Your task to perform on an android device: Open Chrome and go to the settings page Image 0: 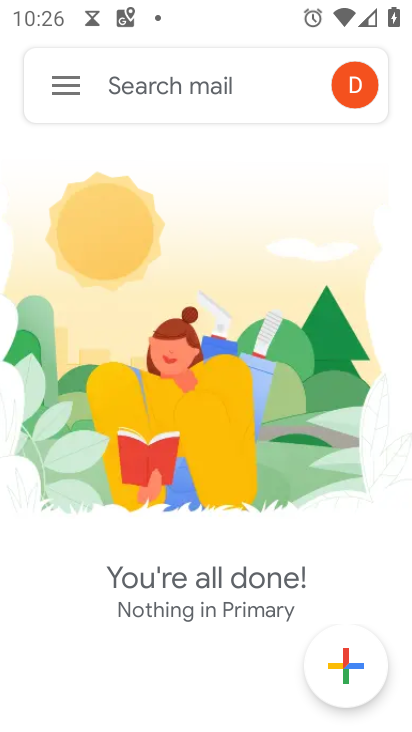
Step 0: press back button
Your task to perform on an android device: Open Chrome and go to the settings page Image 1: 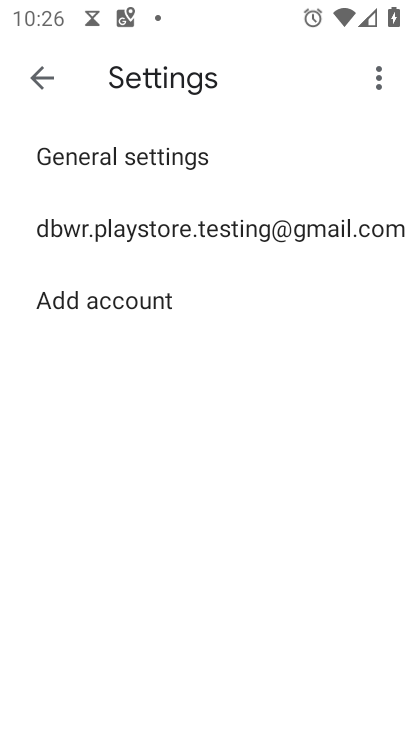
Step 1: click (37, 62)
Your task to perform on an android device: Open Chrome and go to the settings page Image 2: 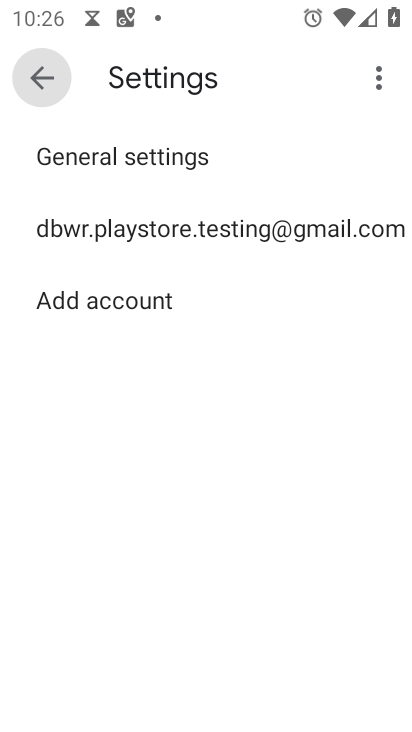
Step 2: click (37, 71)
Your task to perform on an android device: Open Chrome and go to the settings page Image 3: 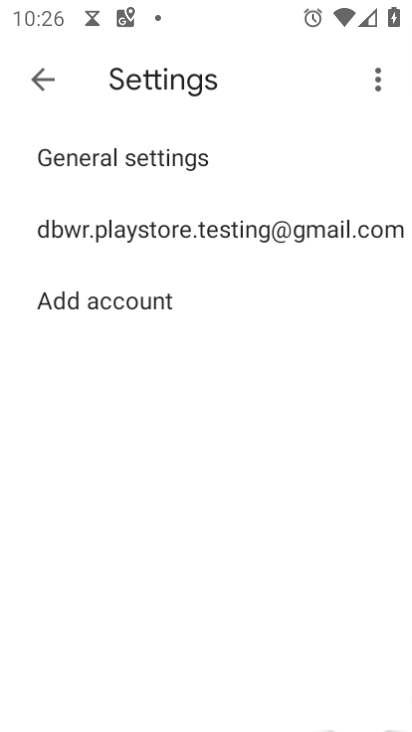
Step 3: click (38, 73)
Your task to perform on an android device: Open Chrome and go to the settings page Image 4: 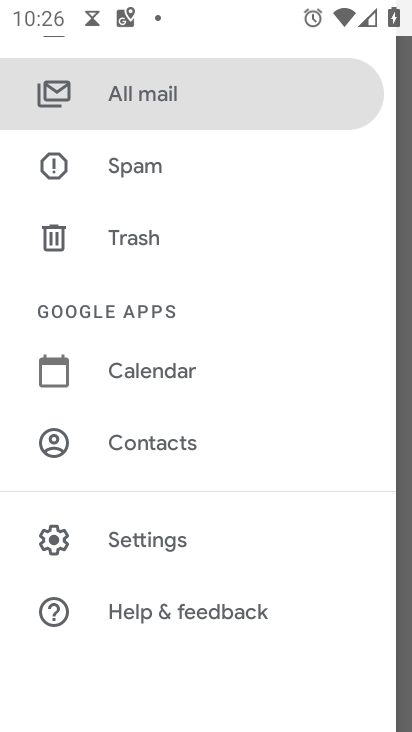
Step 4: press home button
Your task to perform on an android device: Open Chrome and go to the settings page Image 5: 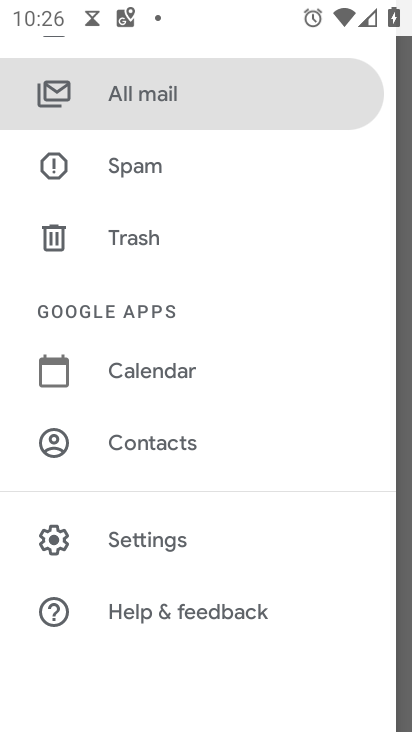
Step 5: press home button
Your task to perform on an android device: Open Chrome and go to the settings page Image 6: 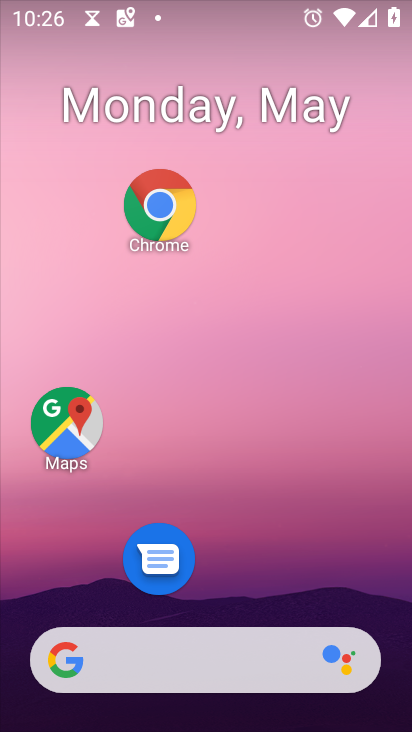
Step 6: drag from (265, 713) to (129, 243)
Your task to perform on an android device: Open Chrome and go to the settings page Image 7: 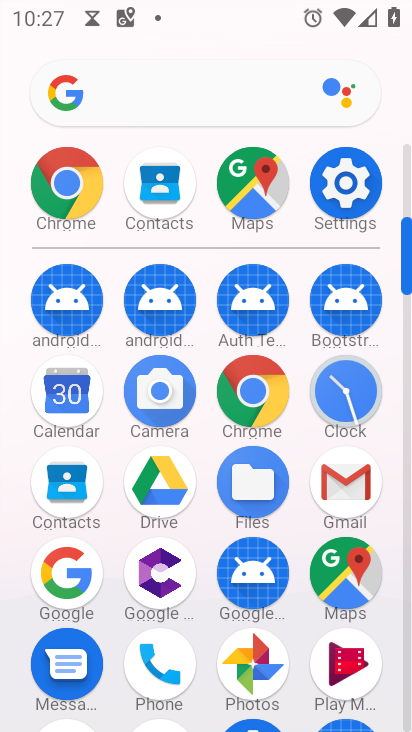
Step 7: click (59, 193)
Your task to perform on an android device: Open Chrome and go to the settings page Image 8: 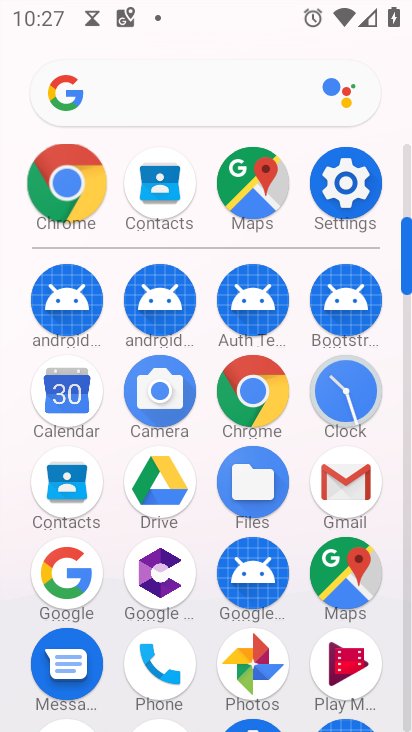
Step 8: click (60, 194)
Your task to perform on an android device: Open Chrome and go to the settings page Image 9: 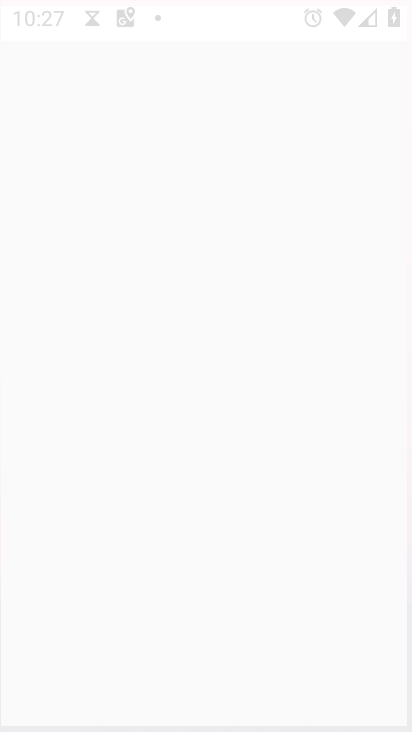
Step 9: click (62, 194)
Your task to perform on an android device: Open Chrome and go to the settings page Image 10: 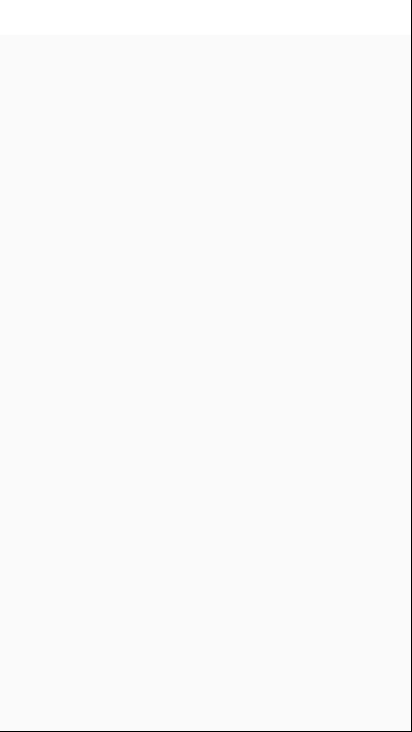
Step 10: click (63, 194)
Your task to perform on an android device: Open Chrome and go to the settings page Image 11: 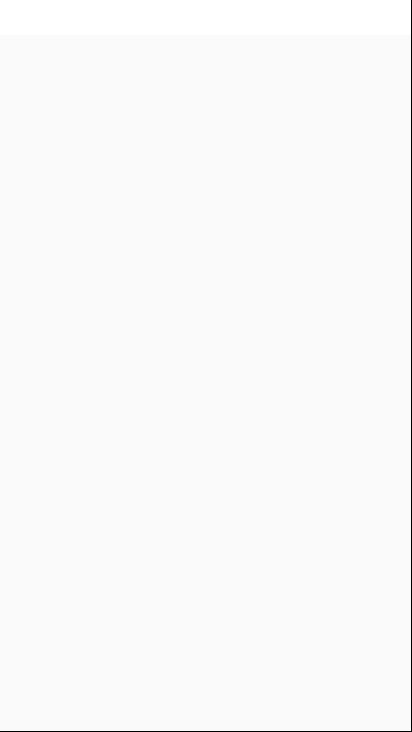
Step 11: click (63, 194)
Your task to perform on an android device: Open Chrome and go to the settings page Image 12: 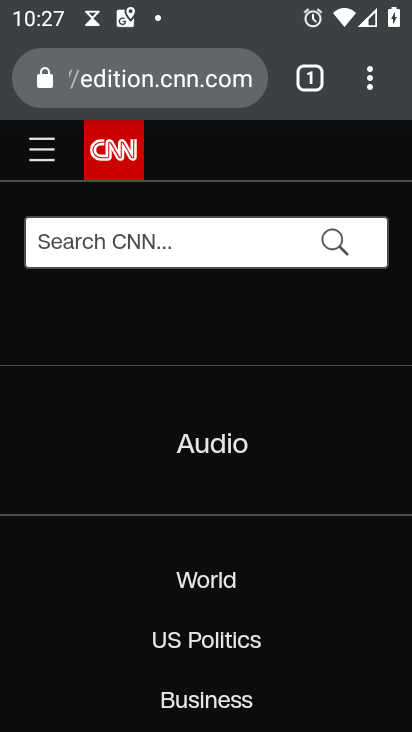
Step 12: drag from (370, 79) to (75, 621)
Your task to perform on an android device: Open Chrome and go to the settings page Image 13: 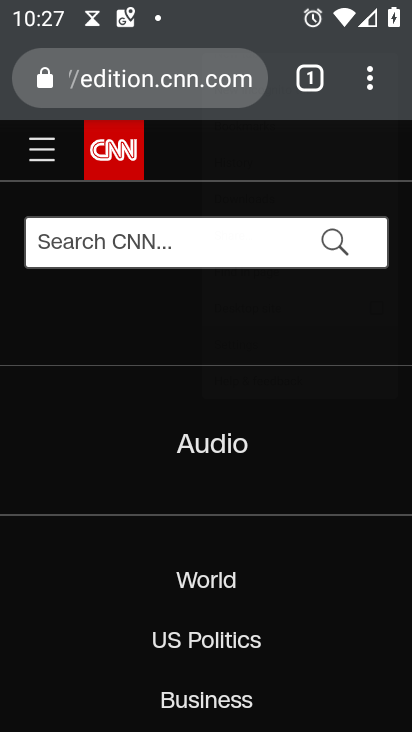
Step 13: click (75, 623)
Your task to perform on an android device: Open Chrome and go to the settings page Image 14: 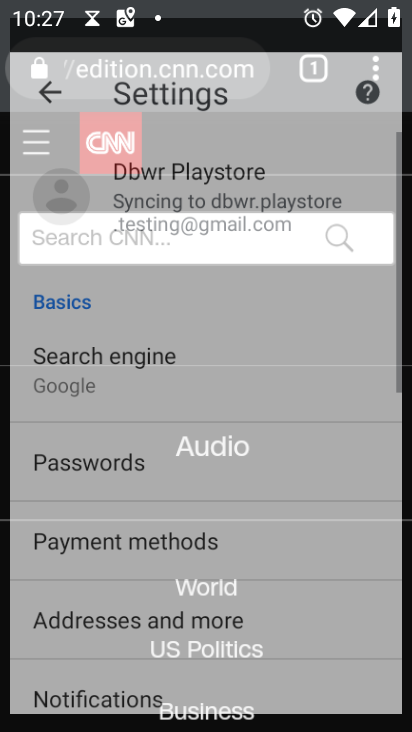
Step 14: click (79, 622)
Your task to perform on an android device: Open Chrome and go to the settings page Image 15: 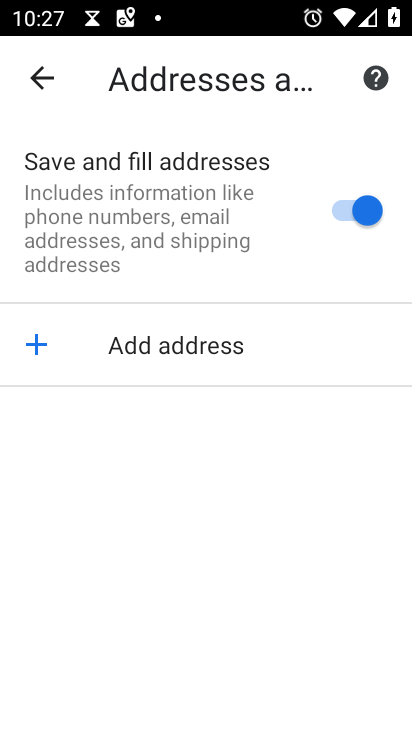
Step 15: click (40, 79)
Your task to perform on an android device: Open Chrome and go to the settings page Image 16: 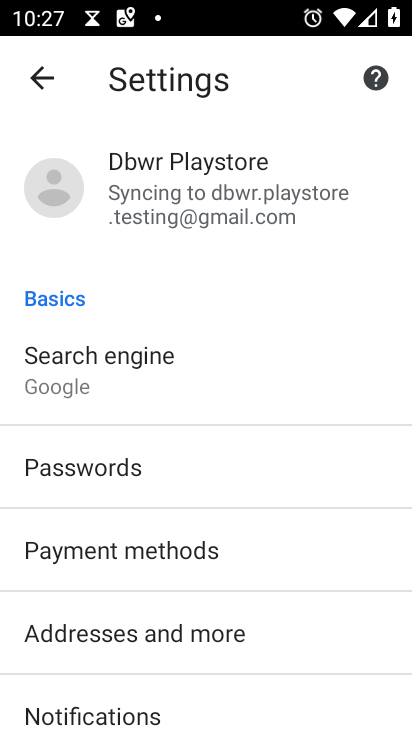
Step 16: drag from (164, 549) to (91, 201)
Your task to perform on an android device: Open Chrome and go to the settings page Image 17: 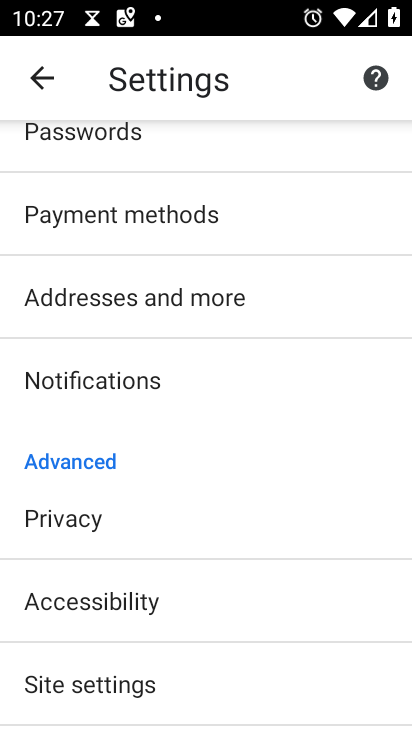
Step 17: click (31, 72)
Your task to perform on an android device: Open Chrome and go to the settings page Image 18: 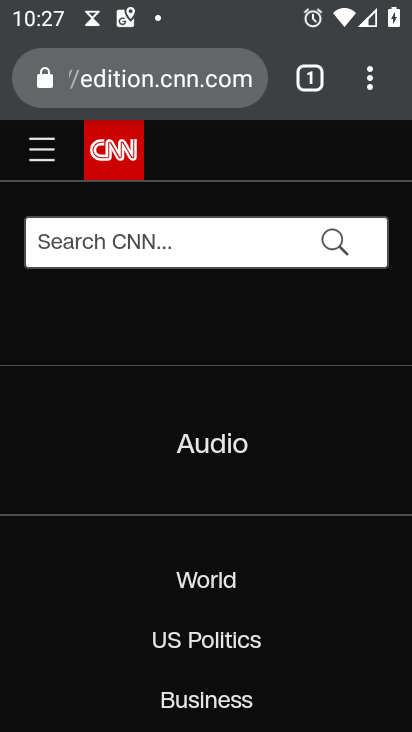
Step 18: click (367, 74)
Your task to perform on an android device: Open Chrome and go to the settings page Image 19: 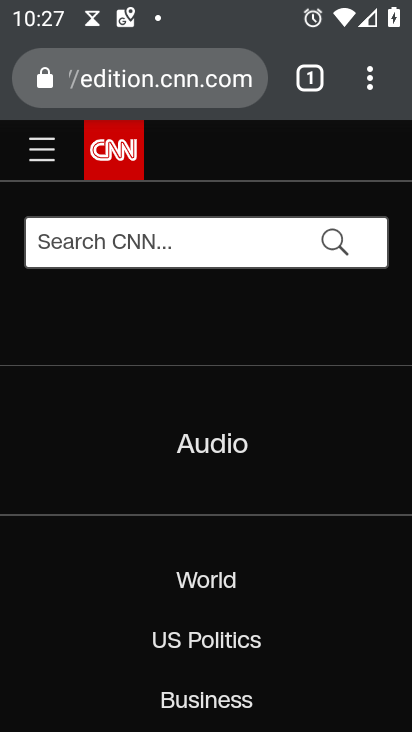
Step 19: click (372, 92)
Your task to perform on an android device: Open Chrome and go to the settings page Image 20: 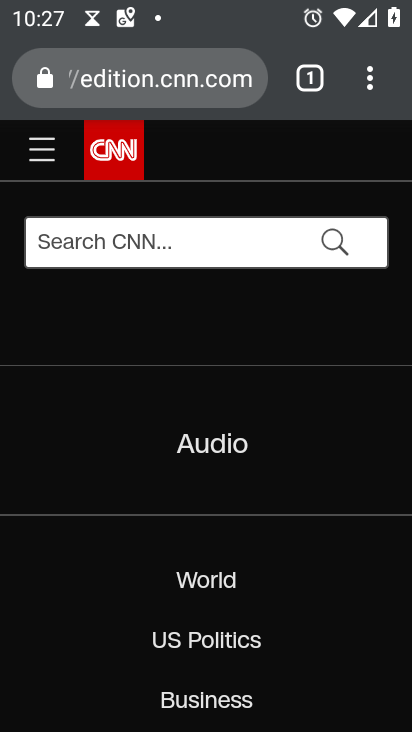
Step 20: click (367, 84)
Your task to perform on an android device: Open Chrome and go to the settings page Image 21: 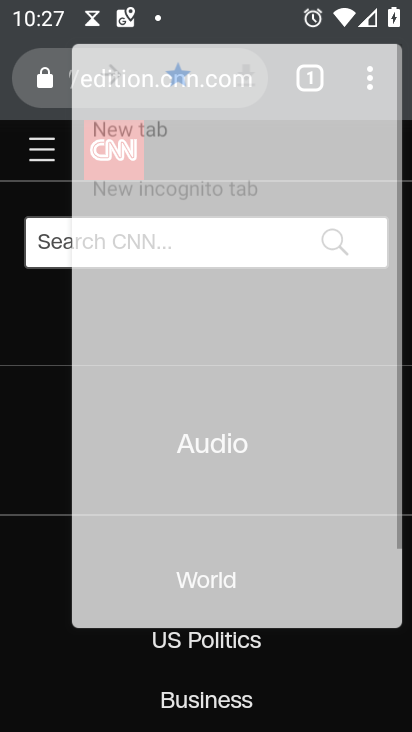
Step 21: click (368, 84)
Your task to perform on an android device: Open Chrome and go to the settings page Image 22: 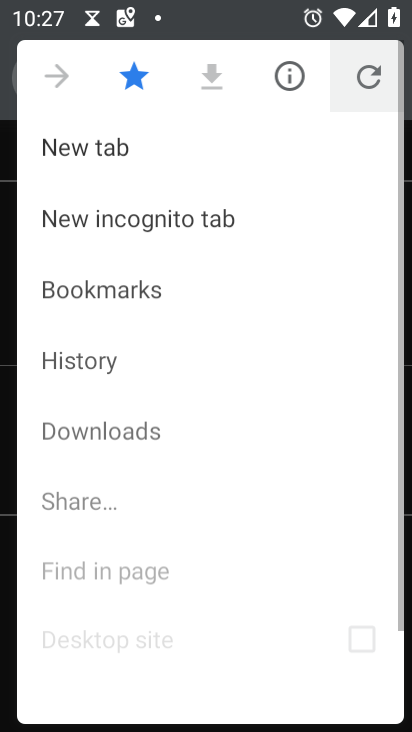
Step 22: drag from (367, 87) to (173, 600)
Your task to perform on an android device: Open Chrome and go to the settings page Image 23: 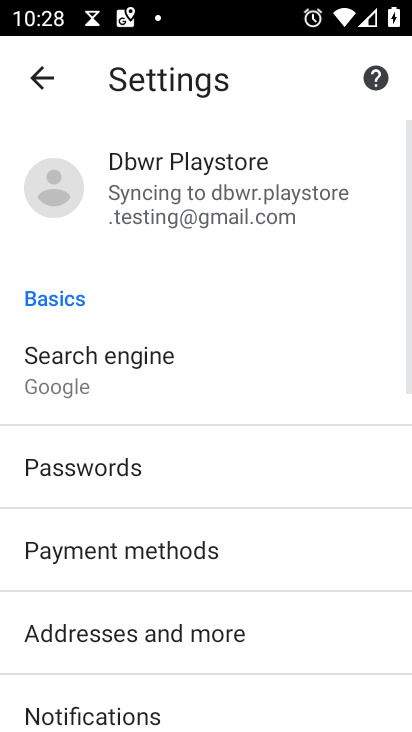
Step 23: press back button
Your task to perform on an android device: Open Chrome and go to the settings page Image 24: 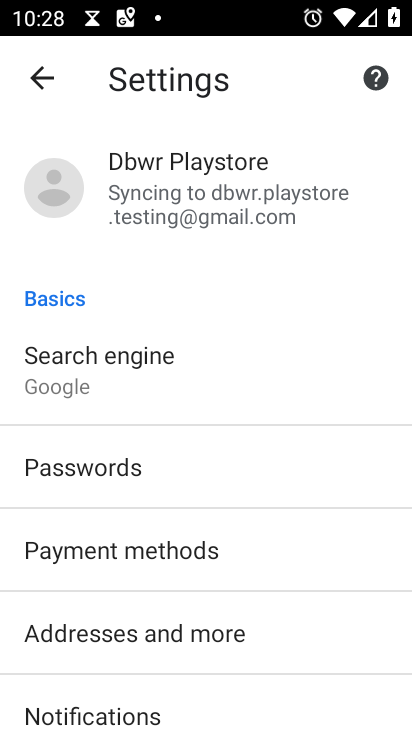
Step 24: press back button
Your task to perform on an android device: Open Chrome and go to the settings page Image 25: 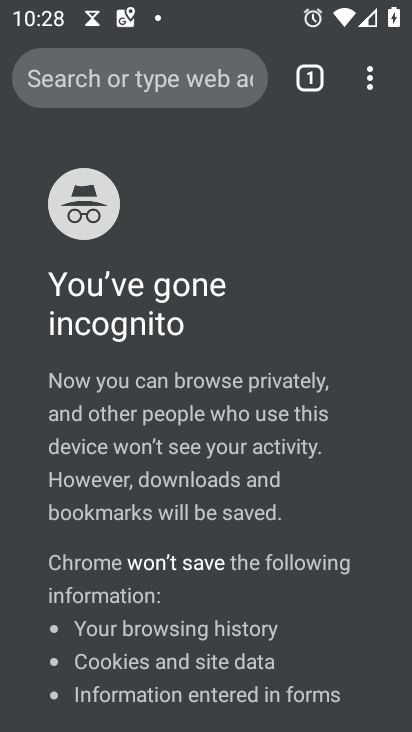
Step 25: click (370, 83)
Your task to perform on an android device: Open Chrome and go to the settings page Image 26: 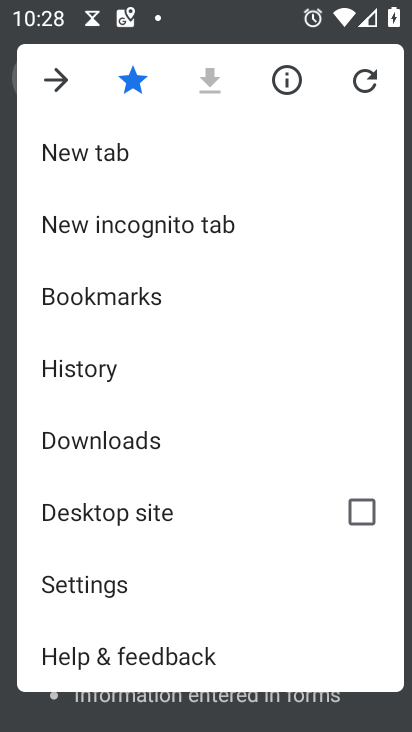
Step 26: press home button
Your task to perform on an android device: Open Chrome and go to the settings page Image 27: 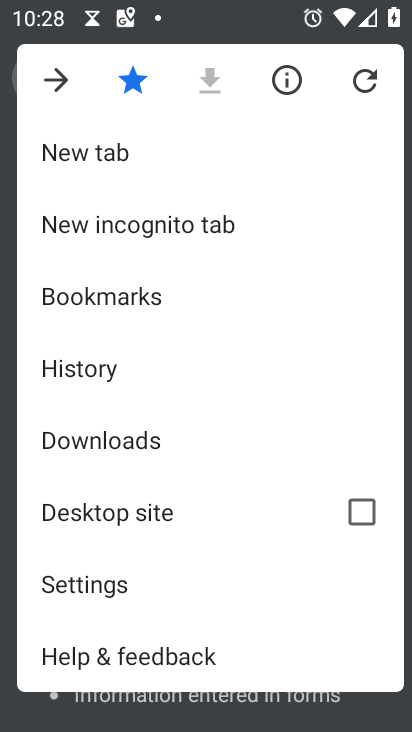
Step 27: press home button
Your task to perform on an android device: Open Chrome and go to the settings page Image 28: 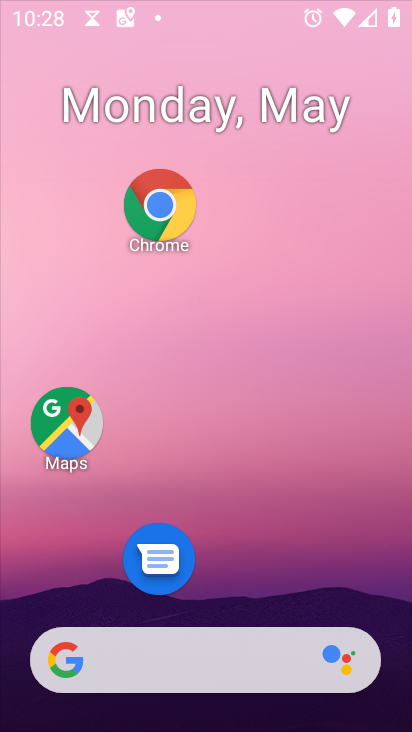
Step 28: press home button
Your task to perform on an android device: Open Chrome and go to the settings page Image 29: 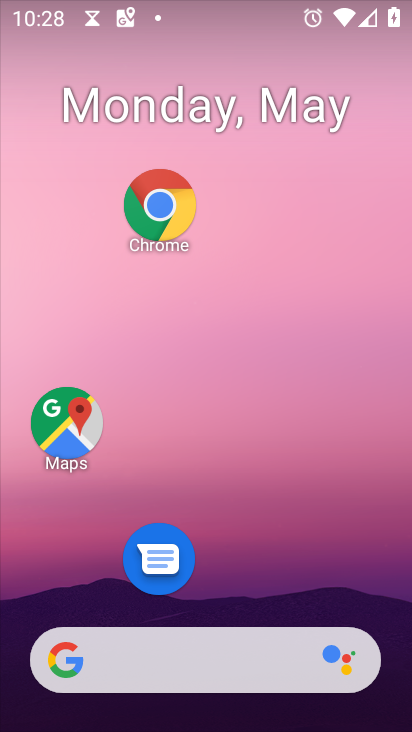
Step 29: drag from (277, 683) to (222, 260)
Your task to perform on an android device: Open Chrome and go to the settings page Image 30: 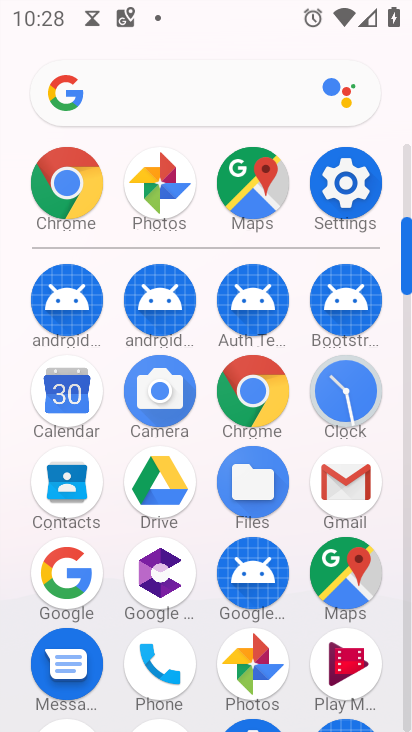
Step 30: click (252, 389)
Your task to perform on an android device: Open Chrome and go to the settings page Image 31: 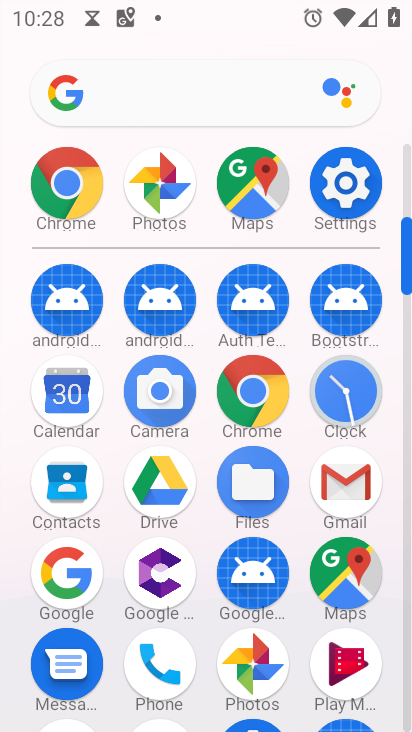
Step 31: click (255, 388)
Your task to perform on an android device: Open Chrome and go to the settings page Image 32: 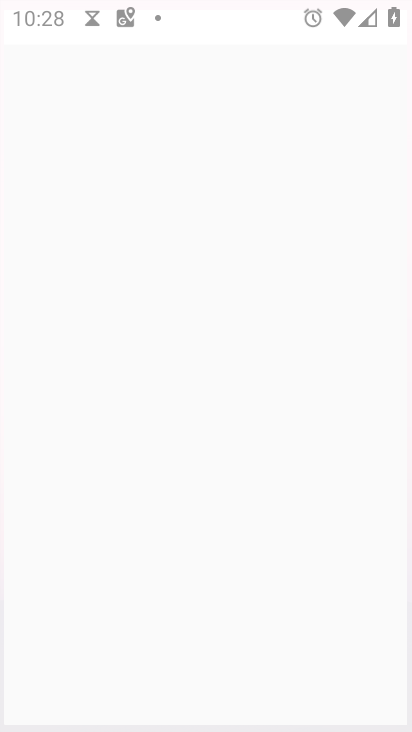
Step 32: click (255, 388)
Your task to perform on an android device: Open Chrome and go to the settings page Image 33: 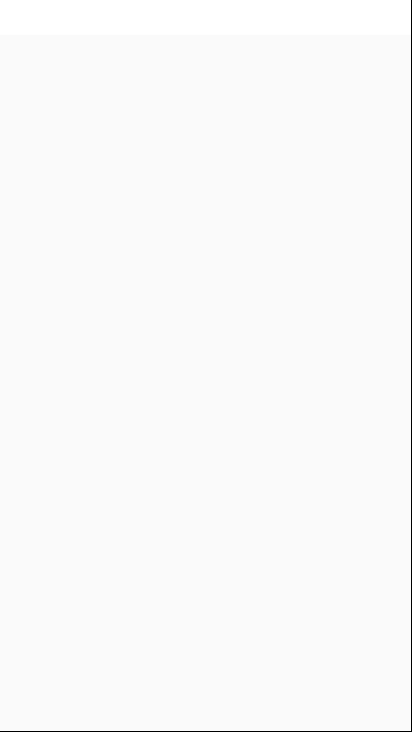
Step 33: click (255, 388)
Your task to perform on an android device: Open Chrome and go to the settings page Image 34: 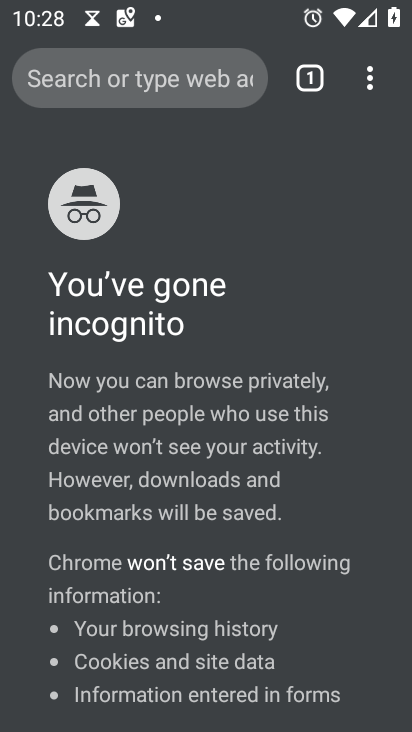
Step 34: drag from (369, 84) to (105, 161)
Your task to perform on an android device: Open Chrome and go to the settings page Image 35: 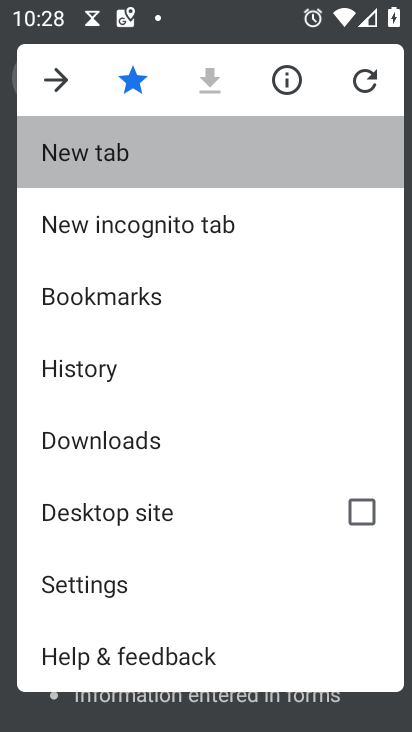
Step 35: click (110, 158)
Your task to perform on an android device: Open Chrome and go to the settings page Image 36: 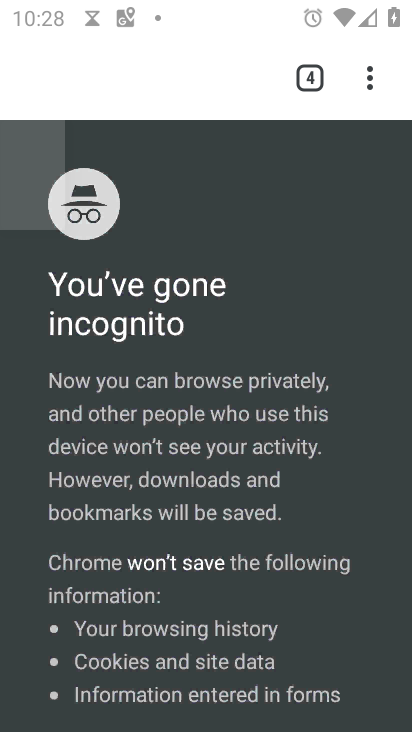
Step 36: click (111, 157)
Your task to perform on an android device: Open Chrome and go to the settings page Image 37: 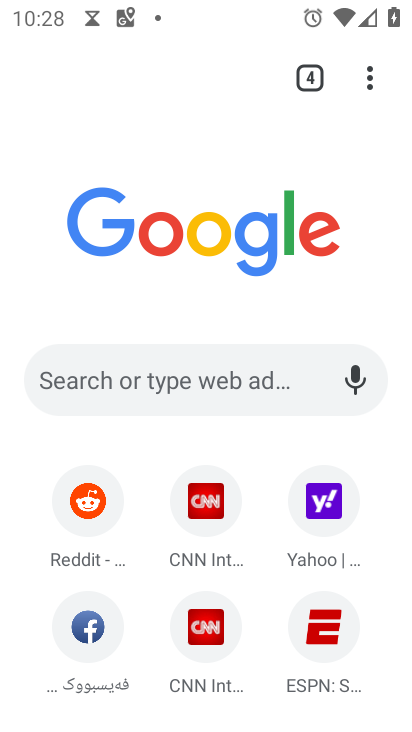
Step 37: task complete